Your task to perform on an android device: change keyboard looks Image 0: 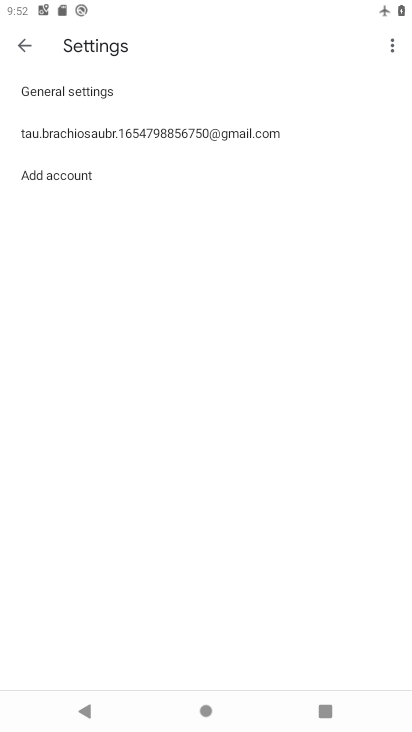
Step 0: press home button
Your task to perform on an android device: change keyboard looks Image 1: 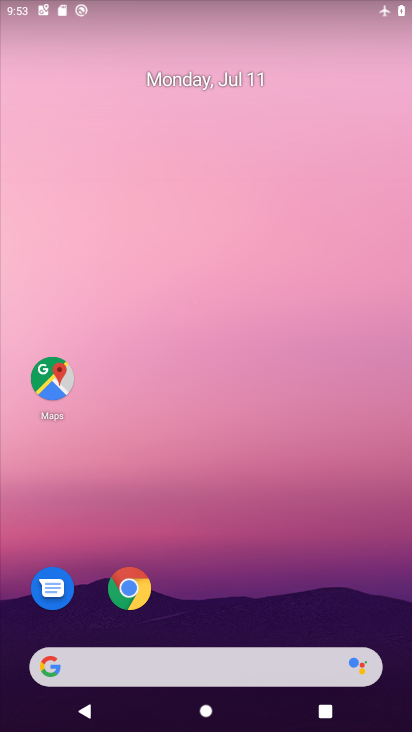
Step 1: drag from (244, 602) to (261, 45)
Your task to perform on an android device: change keyboard looks Image 2: 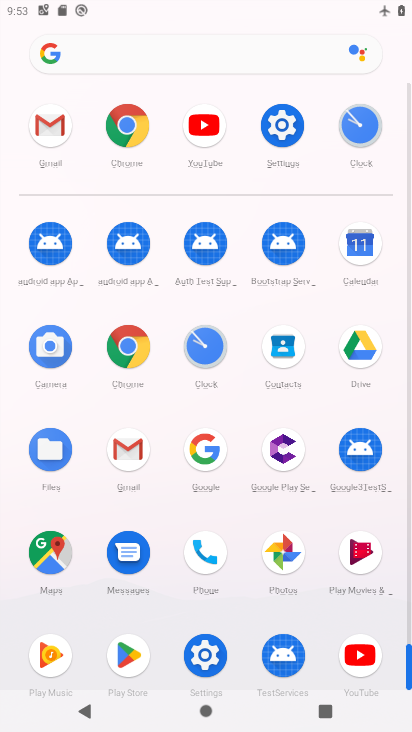
Step 2: click (289, 123)
Your task to perform on an android device: change keyboard looks Image 3: 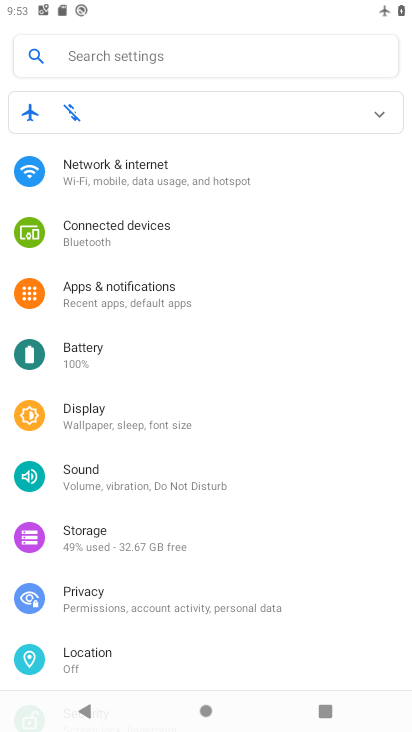
Step 3: drag from (162, 539) to (203, 197)
Your task to perform on an android device: change keyboard looks Image 4: 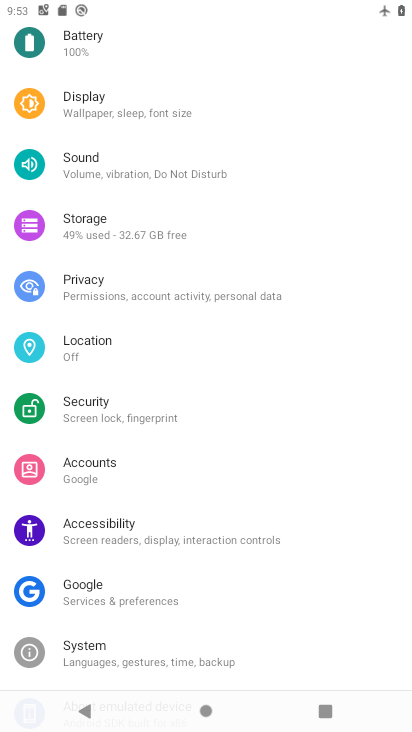
Step 4: click (170, 547)
Your task to perform on an android device: change keyboard looks Image 5: 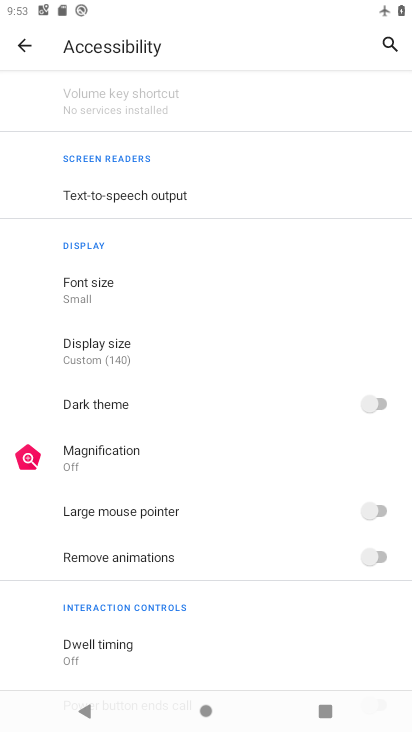
Step 5: click (22, 43)
Your task to perform on an android device: change keyboard looks Image 6: 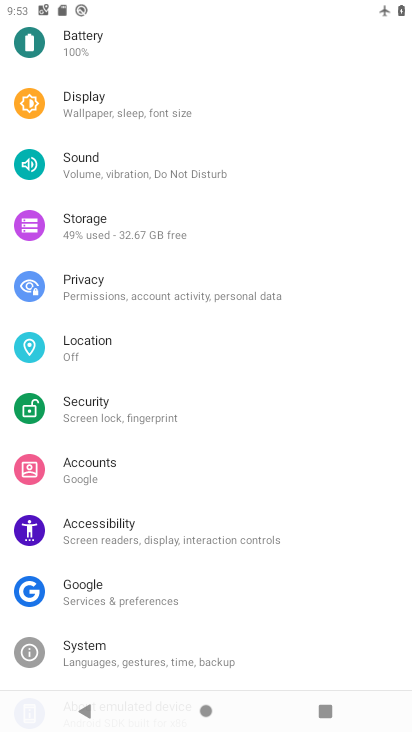
Step 6: click (131, 655)
Your task to perform on an android device: change keyboard looks Image 7: 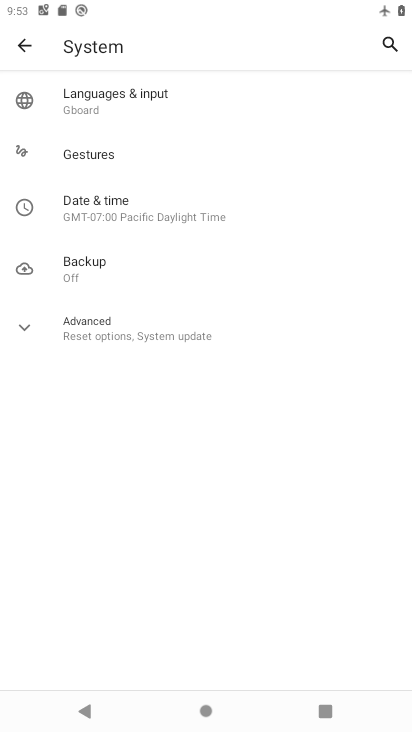
Step 7: click (125, 86)
Your task to perform on an android device: change keyboard looks Image 8: 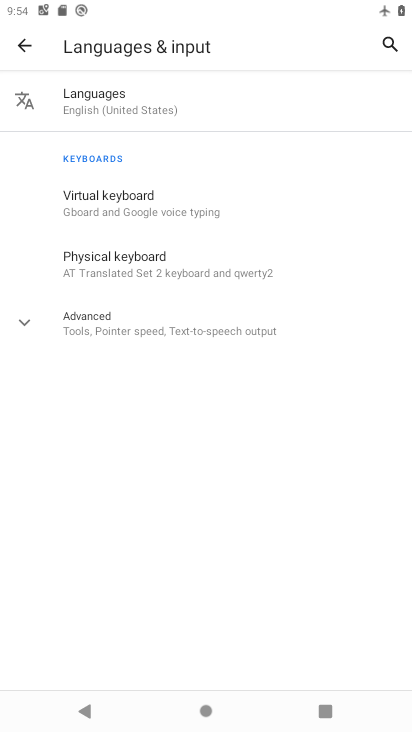
Step 8: click (140, 199)
Your task to perform on an android device: change keyboard looks Image 9: 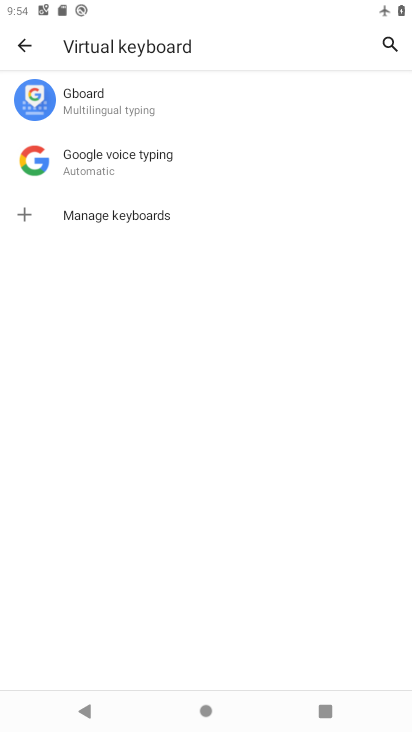
Step 9: click (132, 99)
Your task to perform on an android device: change keyboard looks Image 10: 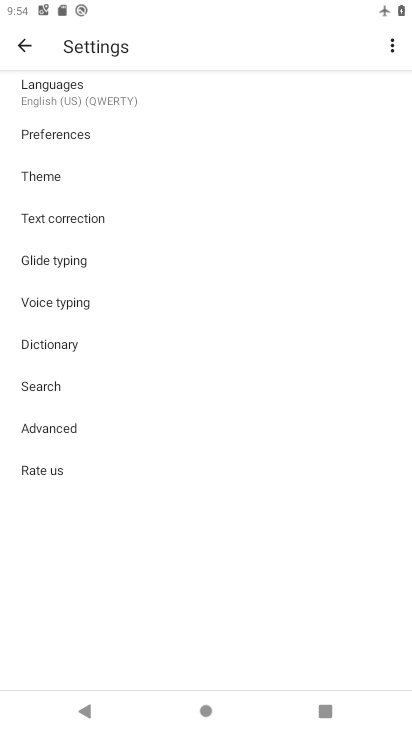
Step 10: click (27, 143)
Your task to perform on an android device: change keyboard looks Image 11: 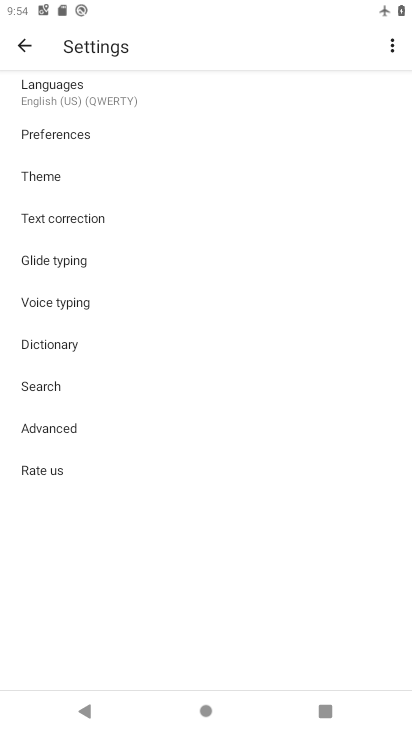
Step 11: click (47, 162)
Your task to perform on an android device: change keyboard looks Image 12: 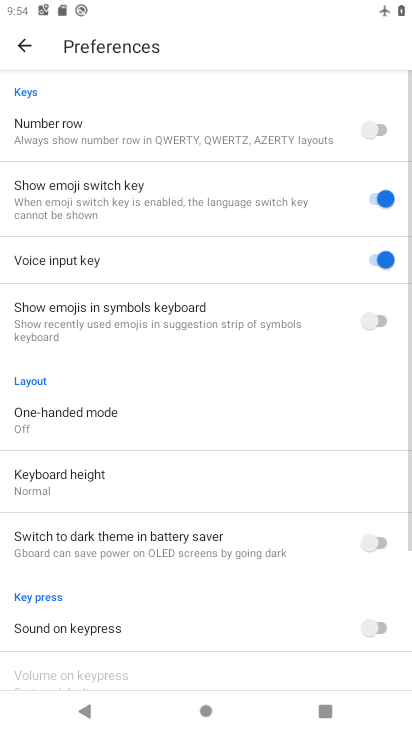
Step 12: click (22, 37)
Your task to perform on an android device: change keyboard looks Image 13: 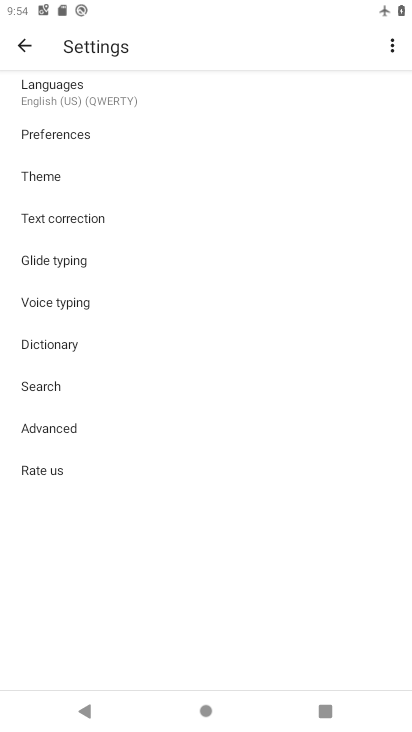
Step 13: click (42, 177)
Your task to perform on an android device: change keyboard looks Image 14: 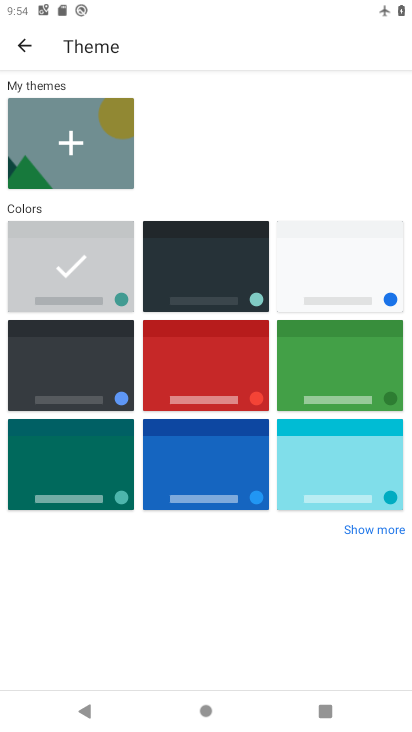
Step 14: click (236, 467)
Your task to perform on an android device: change keyboard looks Image 15: 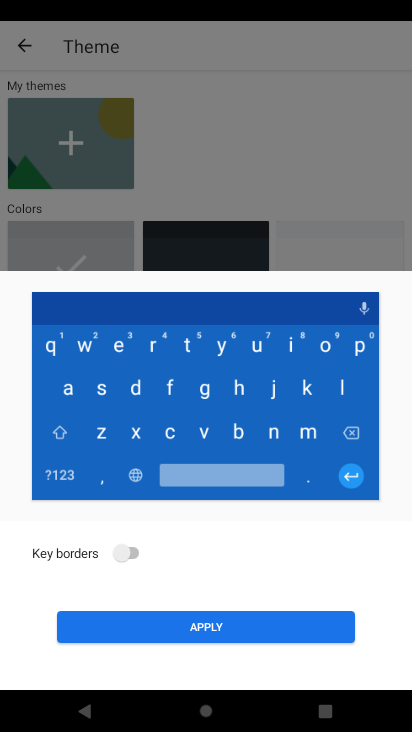
Step 15: click (282, 631)
Your task to perform on an android device: change keyboard looks Image 16: 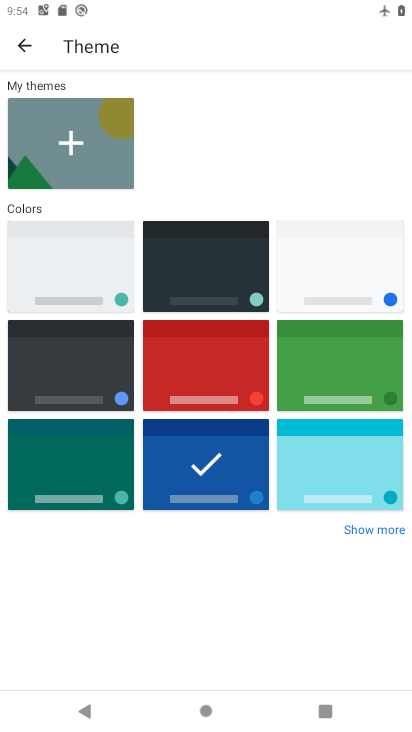
Step 16: task complete